Your task to perform on an android device: toggle pop-ups in chrome Image 0: 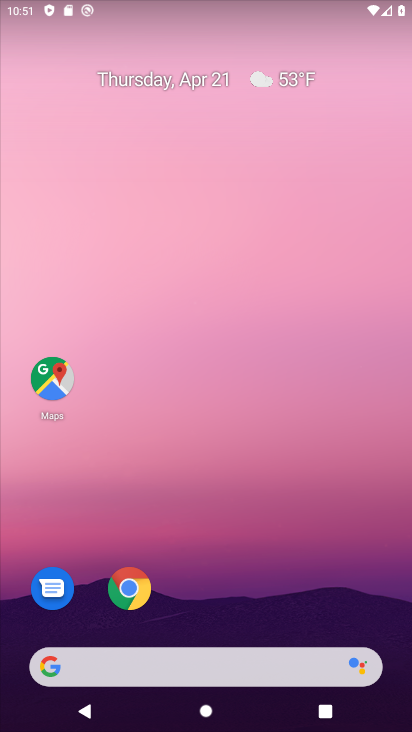
Step 0: click (108, 579)
Your task to perform on an android device: toggle pop-ups in chrome Image 1: 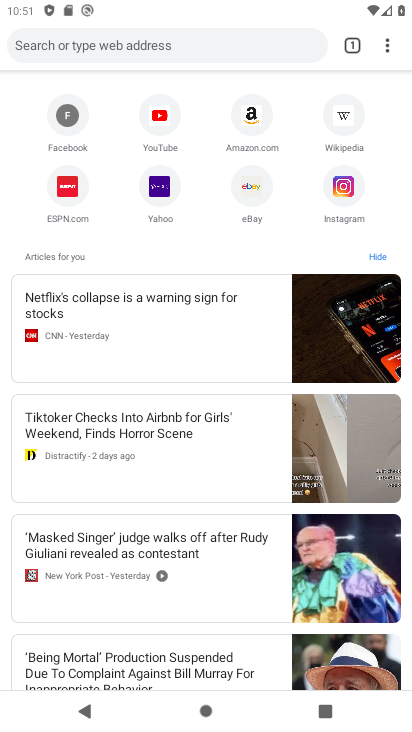
Step 1: click (386, 24)
Your task to perform on an android device: toggle pop-ups in chrome Image 2: 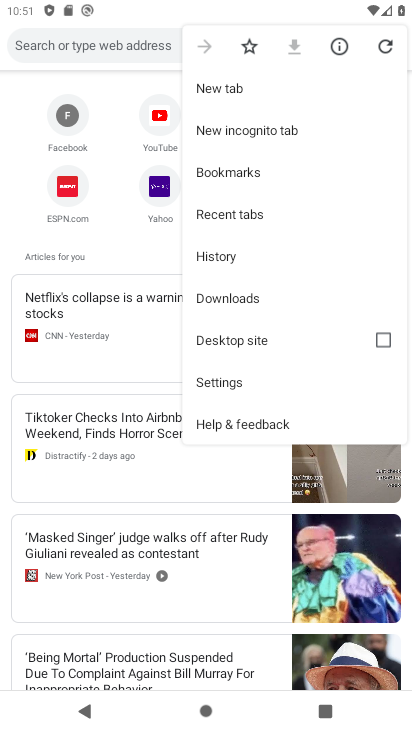
Step 2: click (256, 377)
Your task to perform on an android device: toggle pop-ups in chrome Image 3: 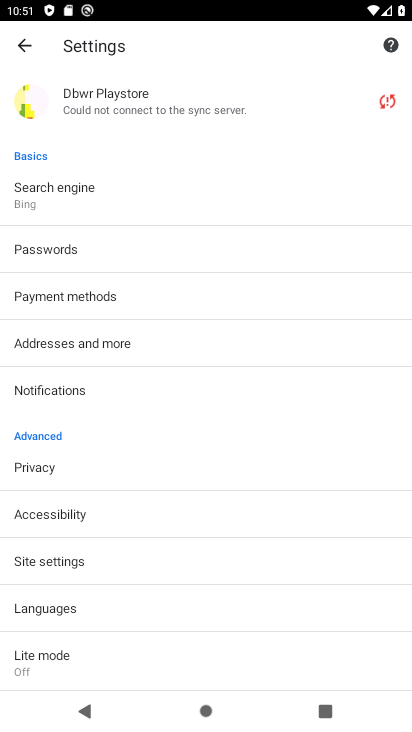
Step 3: click (70, 540)
Your task to perform on an android device: toggle pop-ups in chrome Image 4: 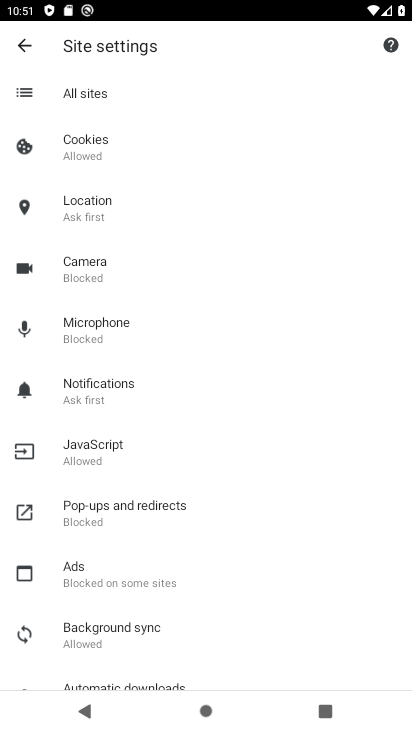
Step 4: click (96, 503)
Your task to perform on an android device: toggle pop-ups in chrome Image 5: 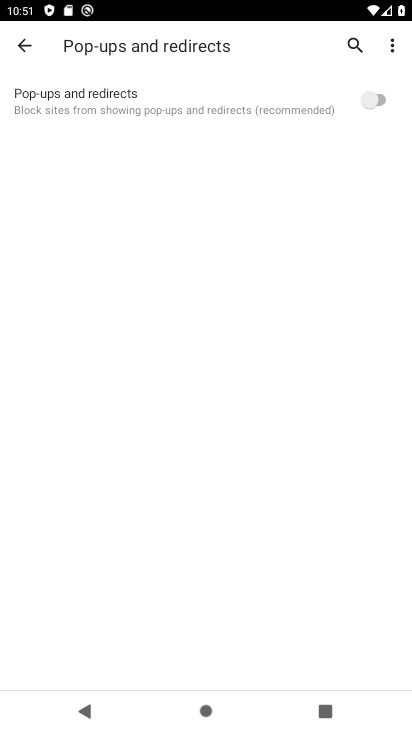
Step 5: click (359, 110)
Your task to perform on an android device: toggle pop-ups in chrome Image 6: 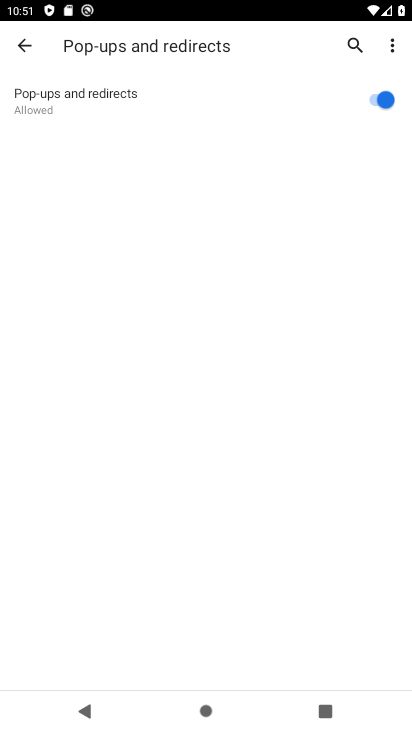
Step 6: task complete